Your task to perform on an android device: toggle pop-ups in chrome Image 0: 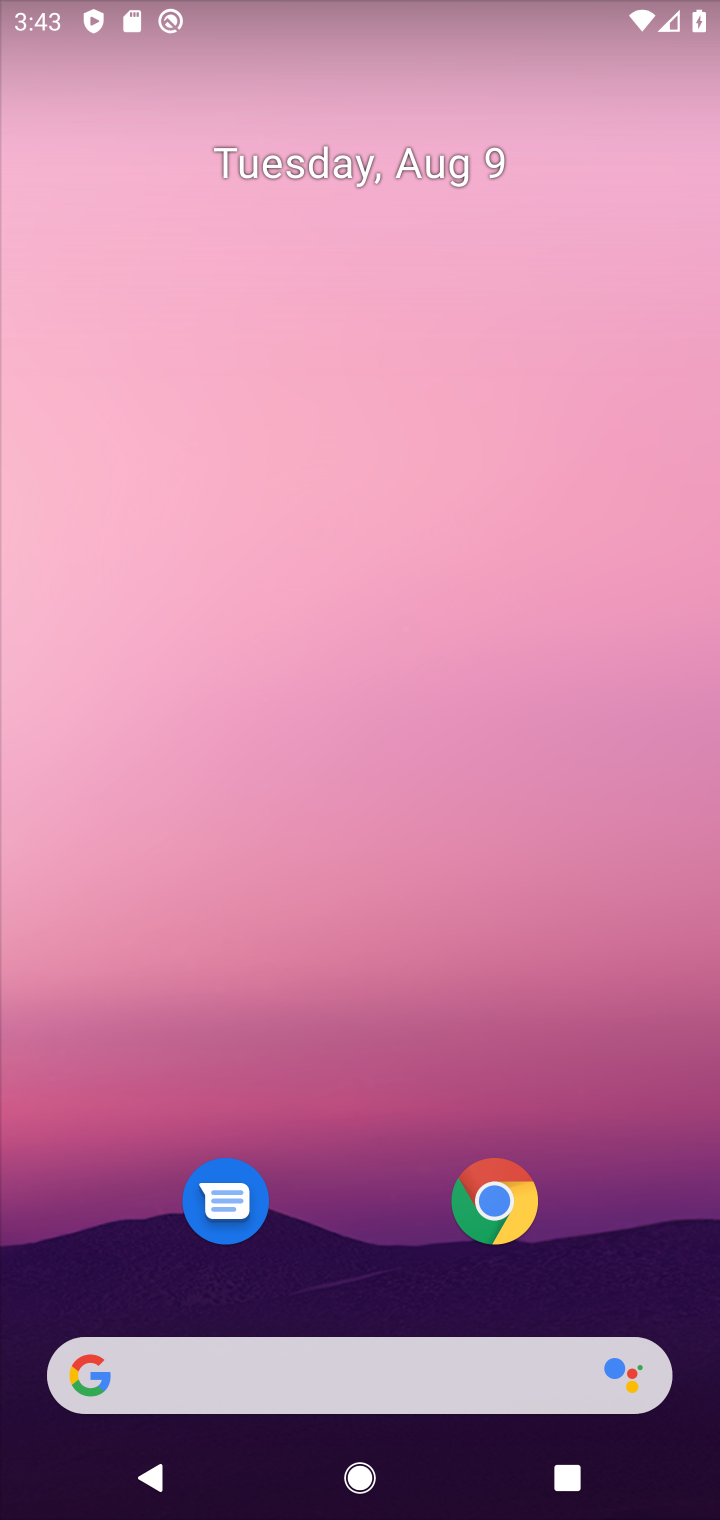
Step 0: press home button
Your task to perform on an android device: toggle pop-ups in chrome Image 1: 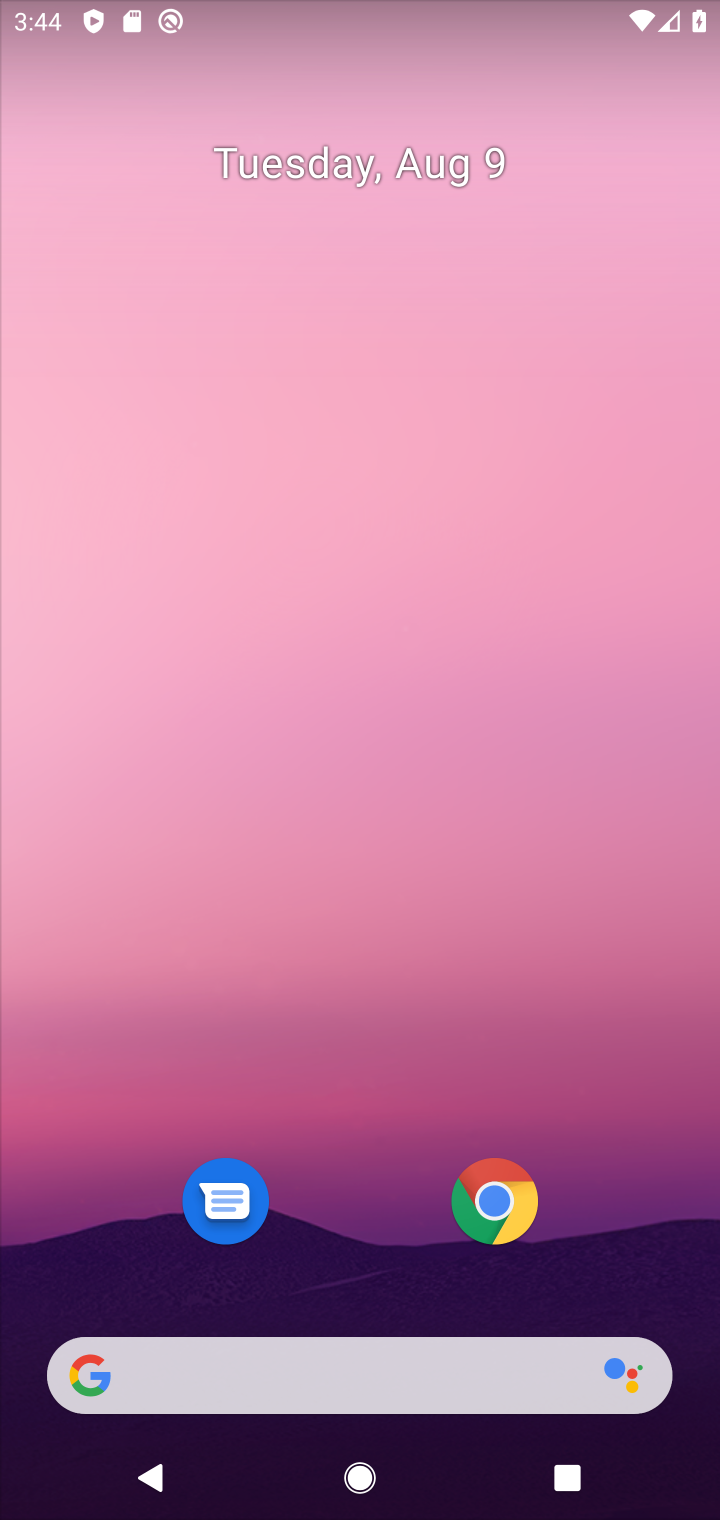
Step 1: click (495, 1201)
Your task to perform on an android device: toggle pop-ups in chrome Image 2: 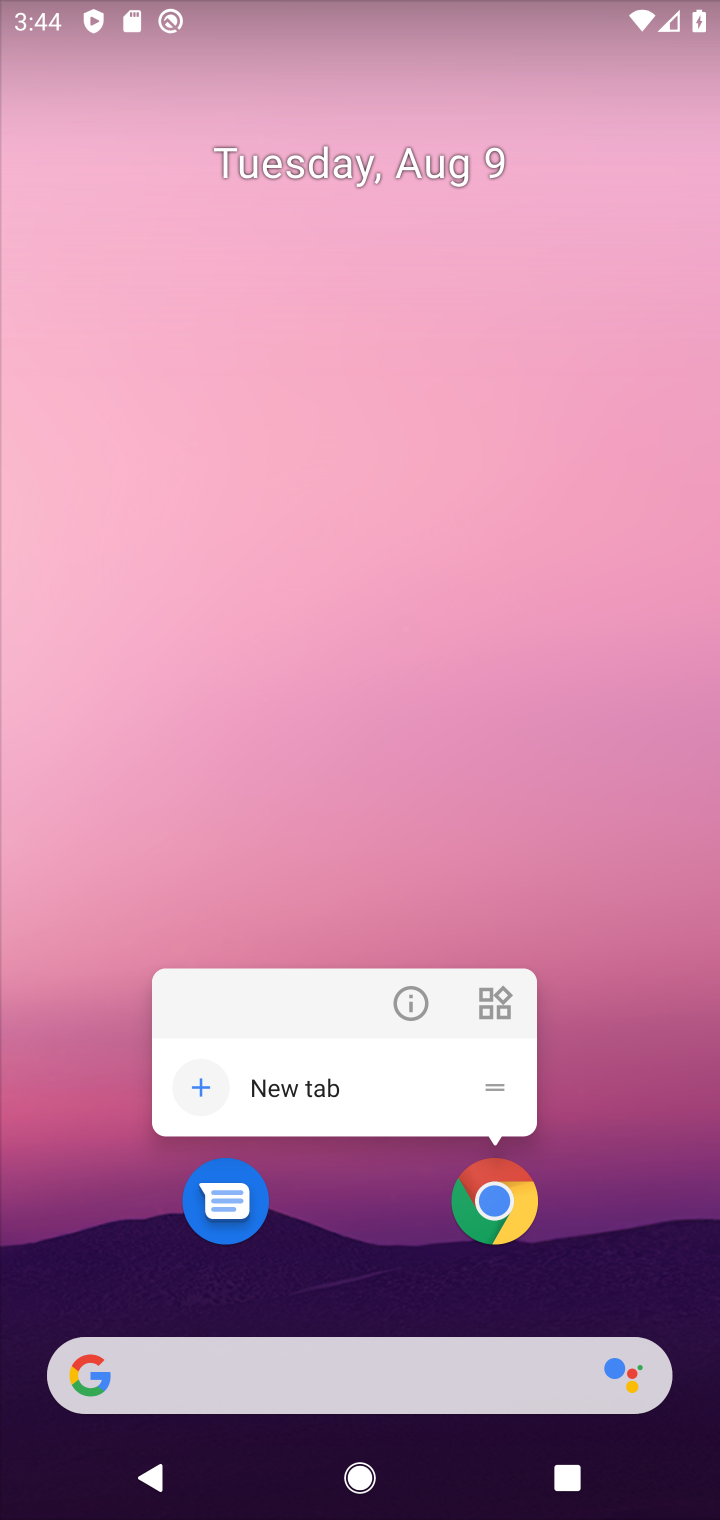
Step 2: click (495, 1201)
Your task to perform on an android device: toggle pop-ups in chrome Image 3: 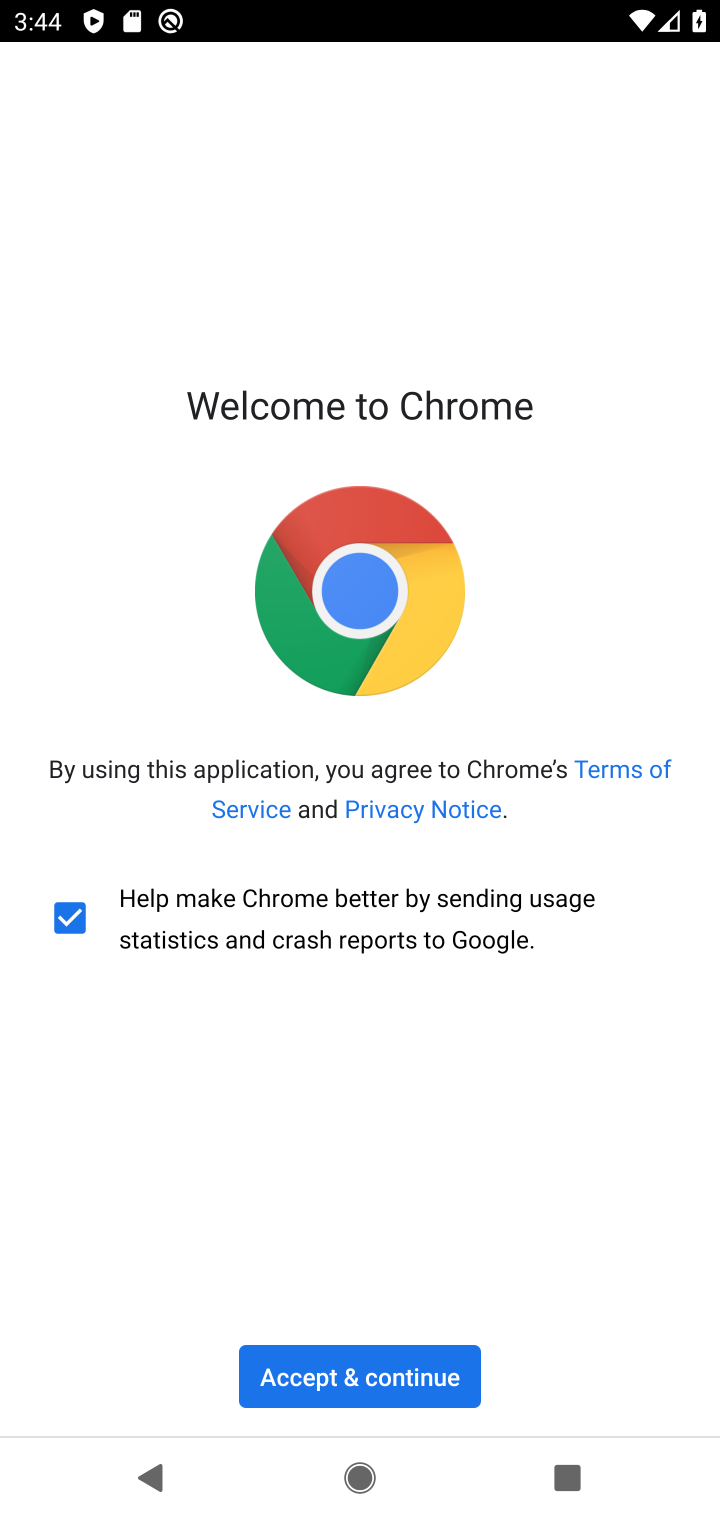
Step 3: click (425, 1382)
Your task to perform on an android device: toggle pop-ups in chrome Image 4: 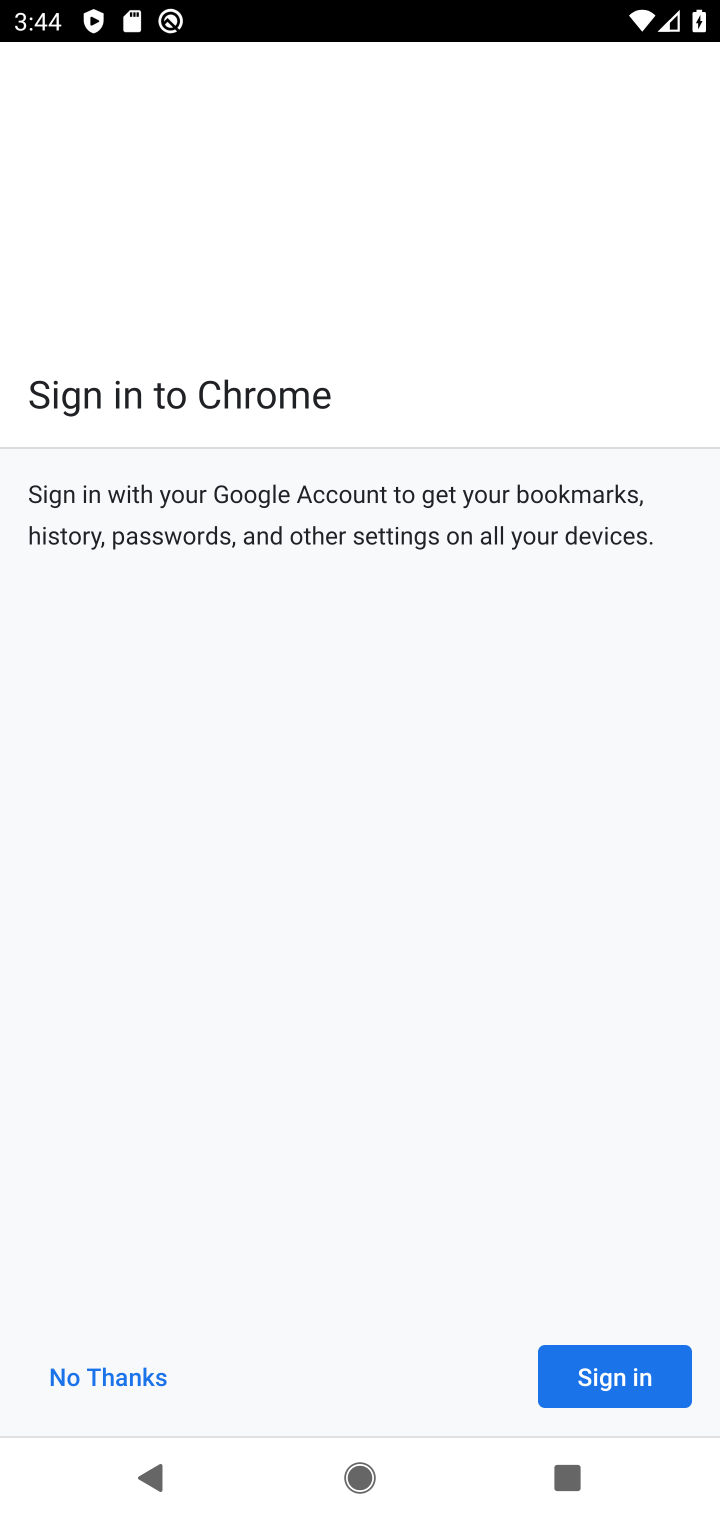
Step 4: click (66, 1384)
Your task to perform on an android device: toggle pop-ups in chrome Image 5: 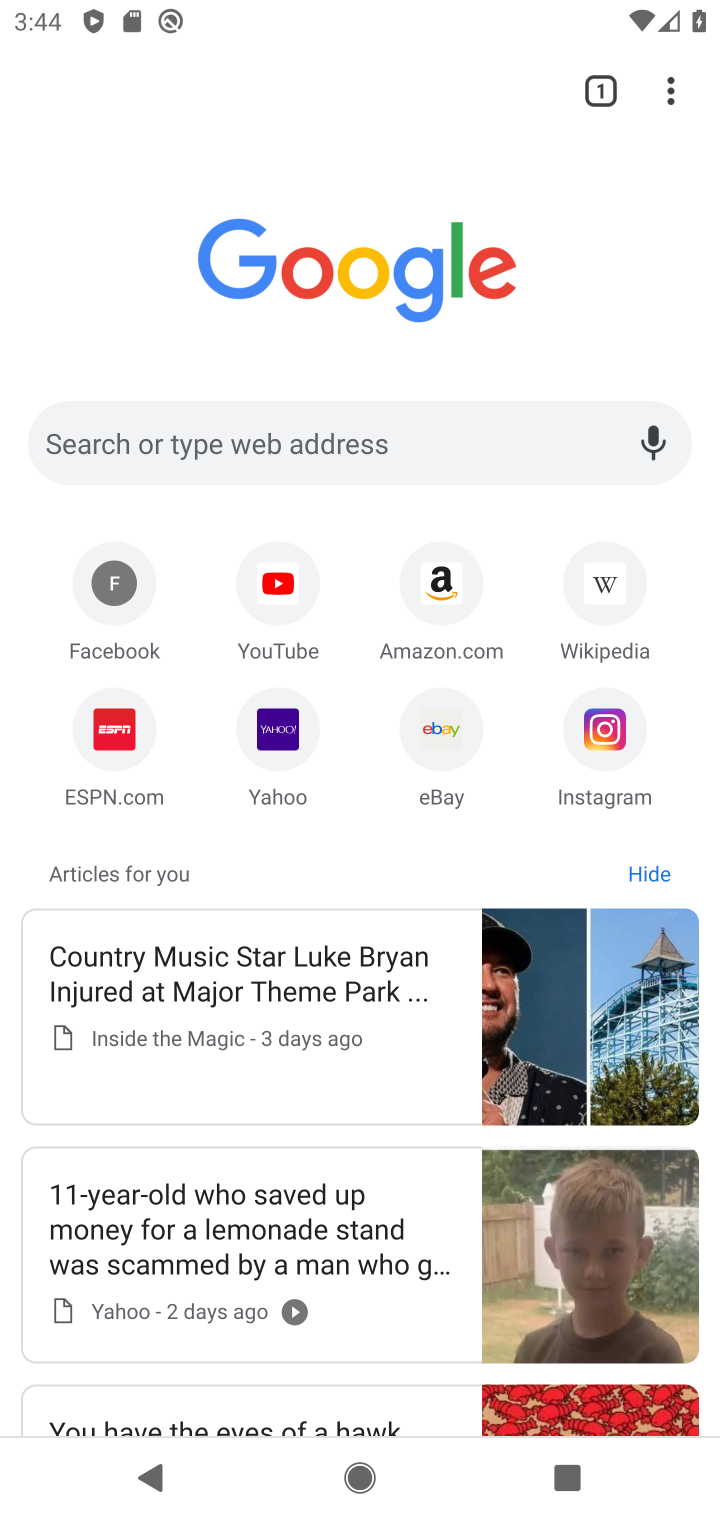
Step 5: click (681, 96)
Your task to perform on an android device: toggle pop-ups in chrome Image 6: 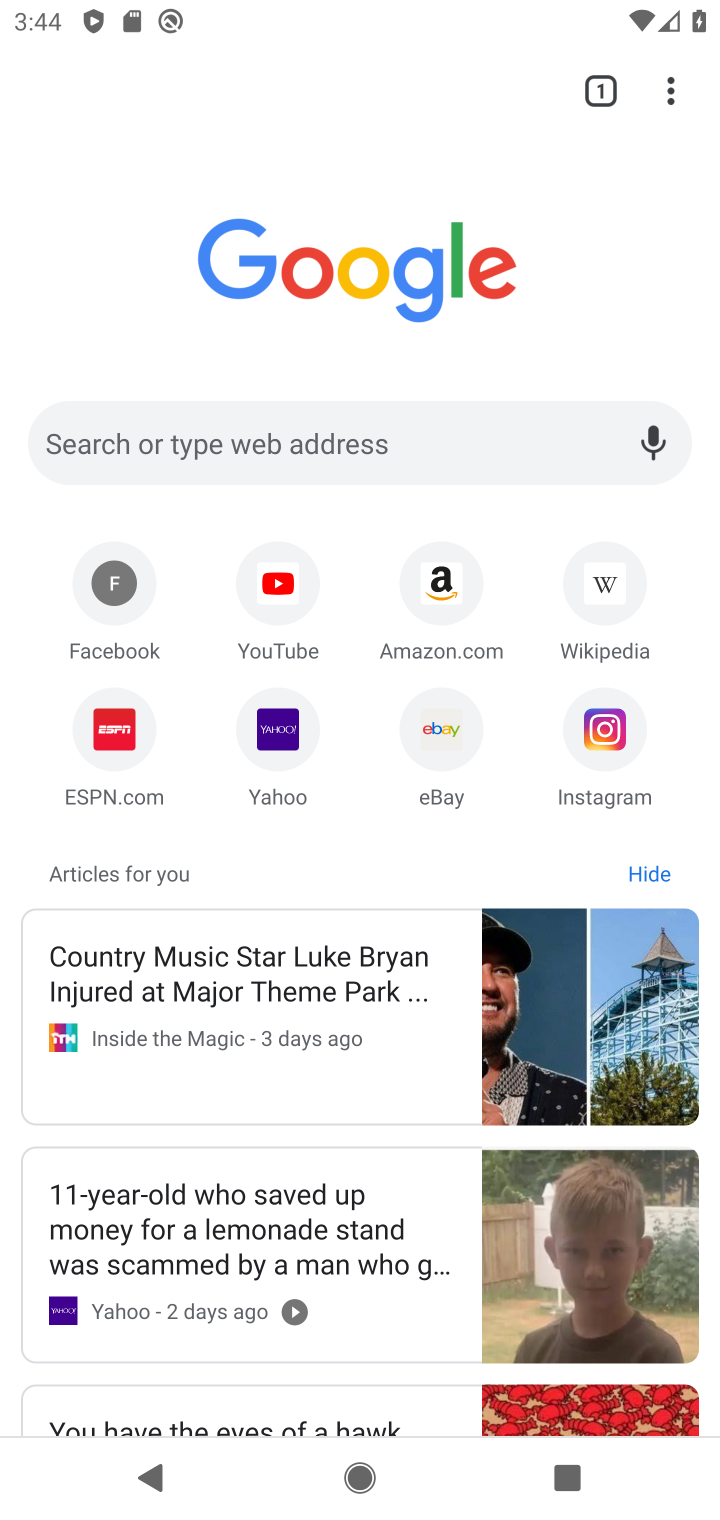
Step 6: drag from (670, 88) to (358, 771)
Your task to perform on an android device: toggle pop-ups in chrome Image 7: 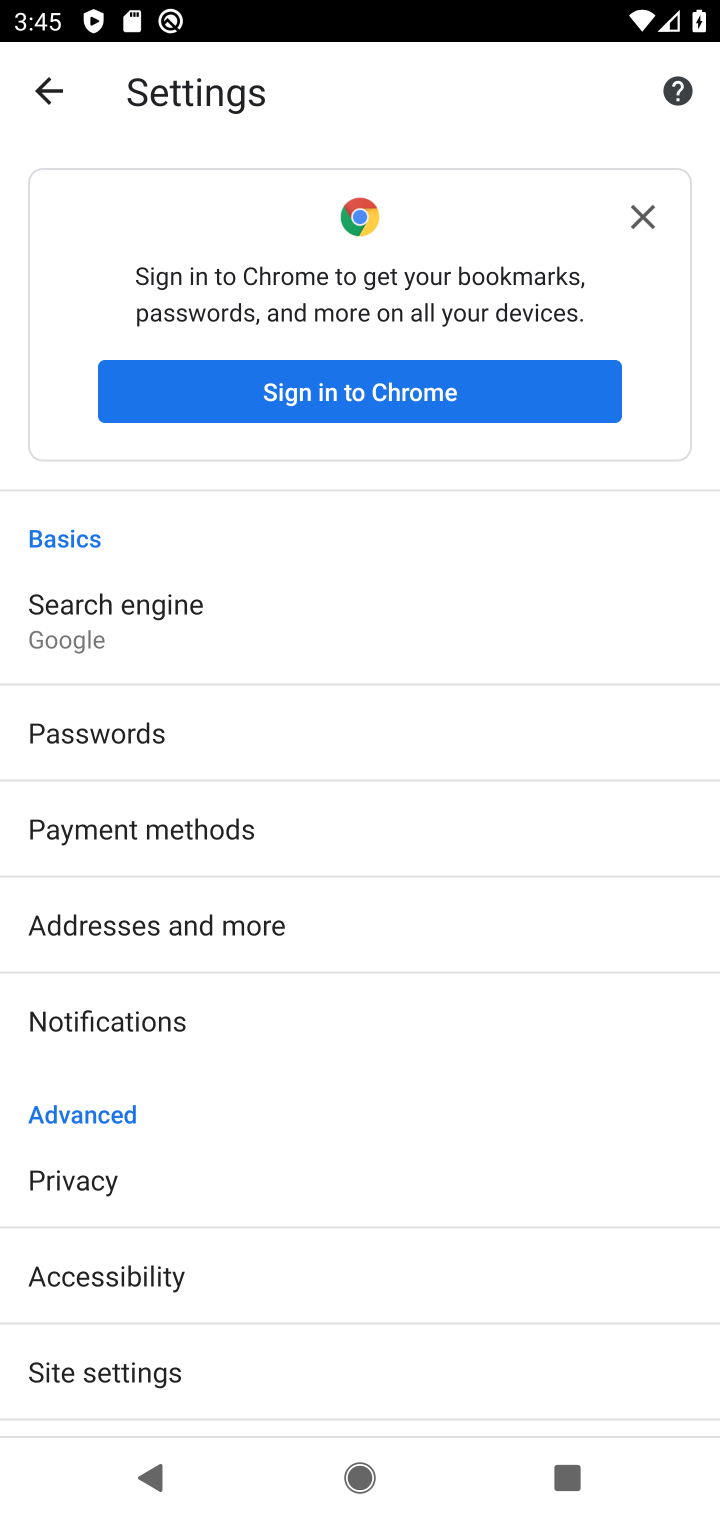
Step 7: drag from (276, 1191) to (452, 903)
Your task to perform on an android device: toggle pop-ups in chrome Image 8: 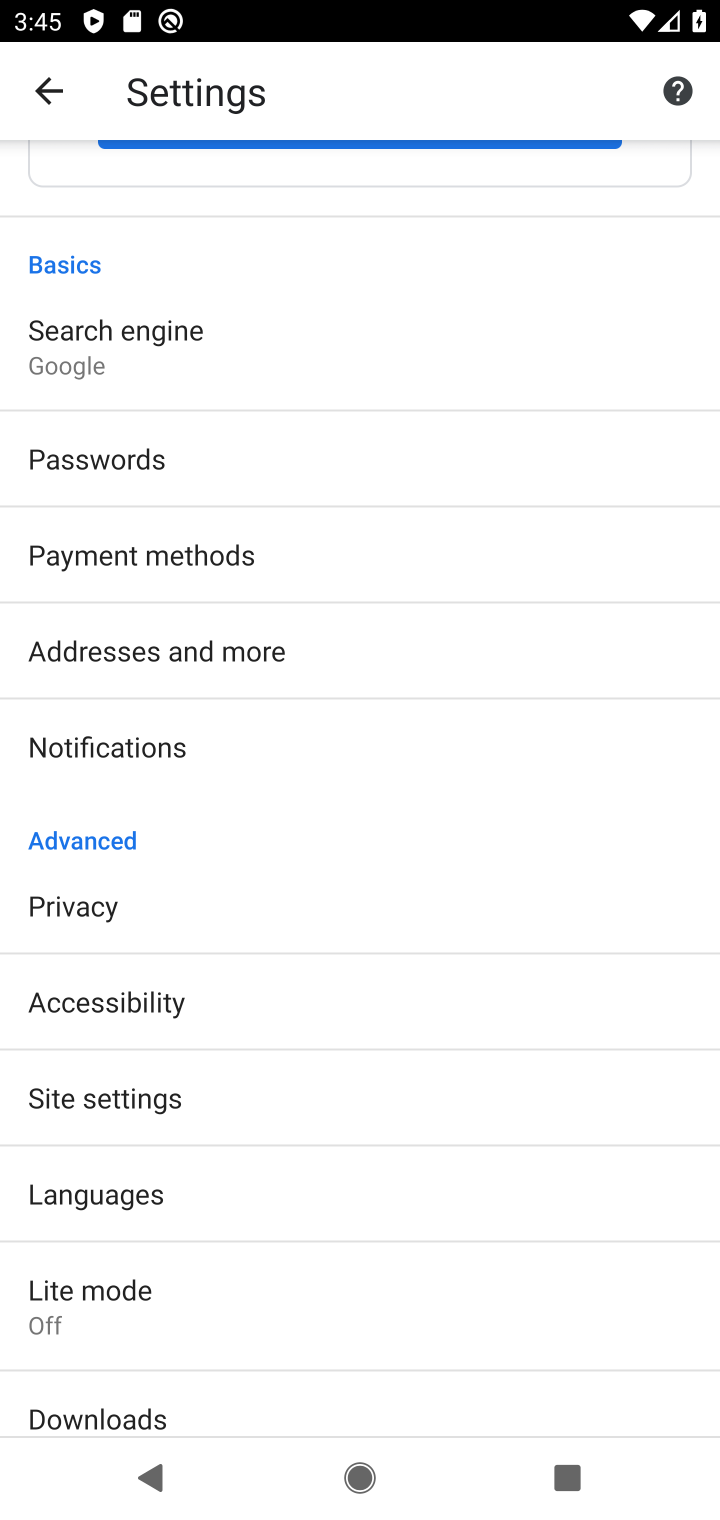
Step 8: click (150, 1107)
Your task to perform on an android device: toggle pop-ups in chrome Image 9: 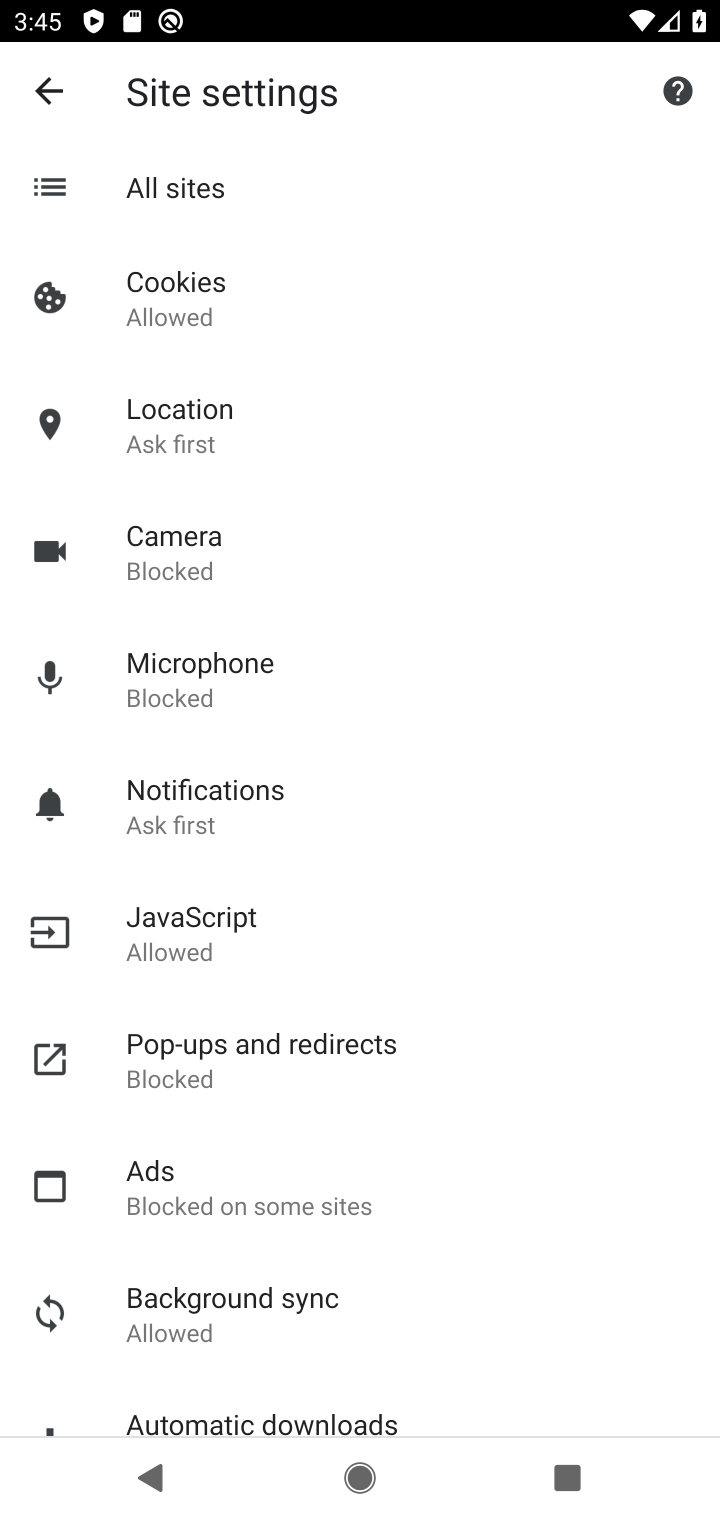
Step 9: click (179, 1077)
Your task to perform on an android device: toggle pop-ups in chrome Image 10: 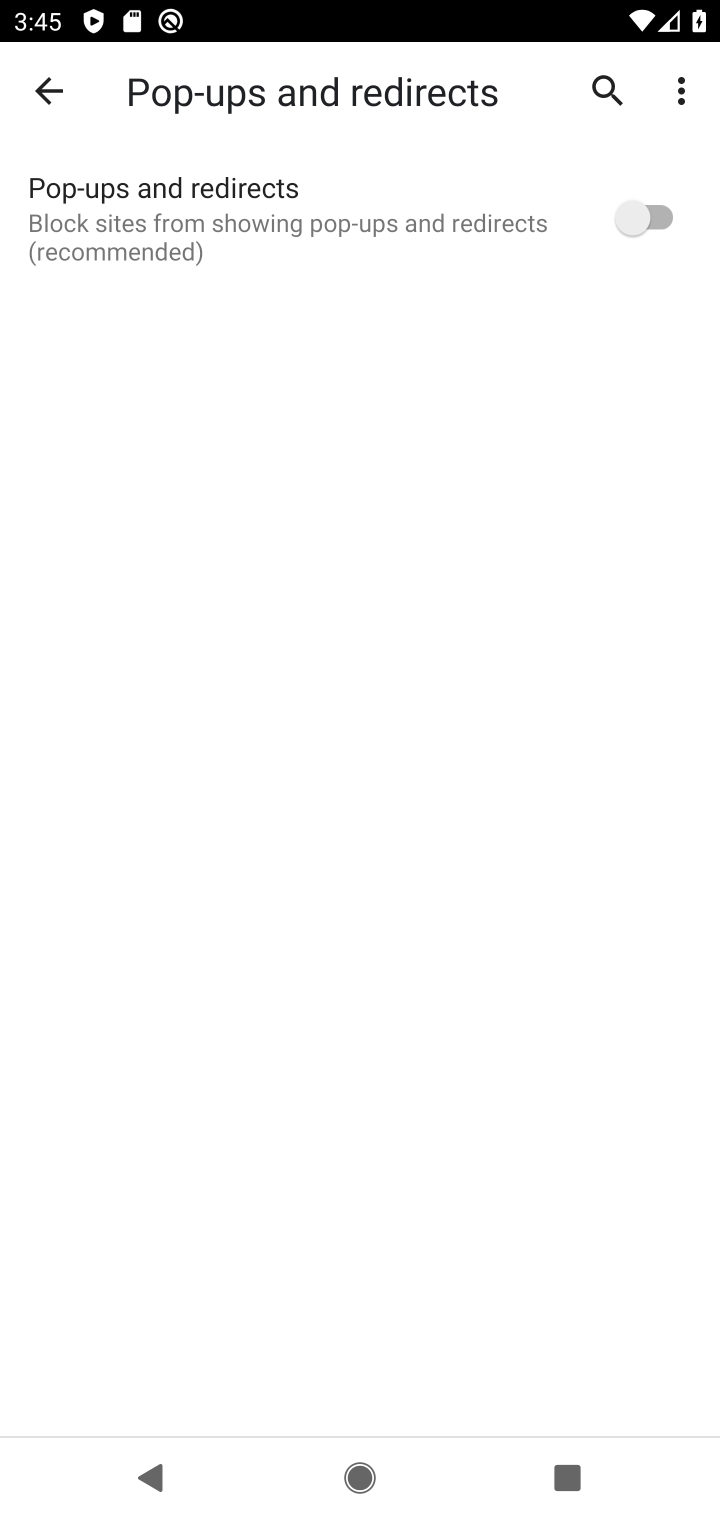
Step 10: click (643, 215)
Your task to perform on an android device: toggle pop-ups in chrome Image 11: 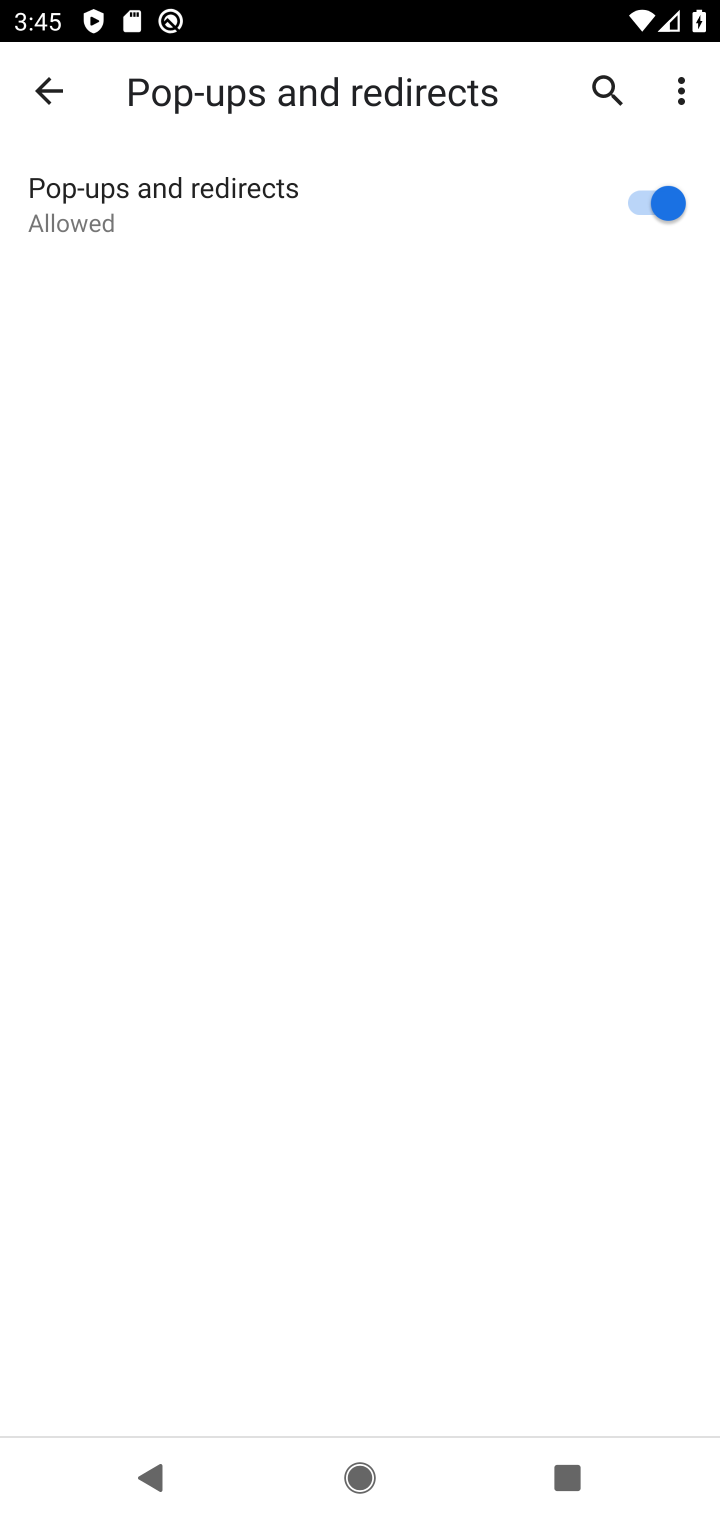
Step 11: task complete